Your task to perform on an android device: What's on my calendar tomorrow? Image 0: 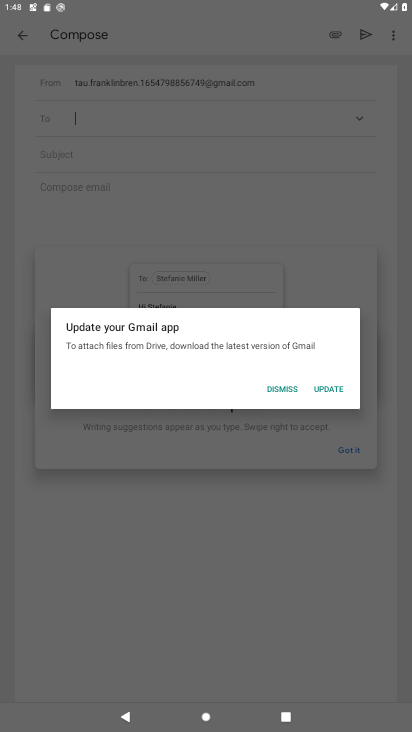
Step 0: press home button
Your task to perform on an android device: What's on my calendar tomorrow? Image 1: 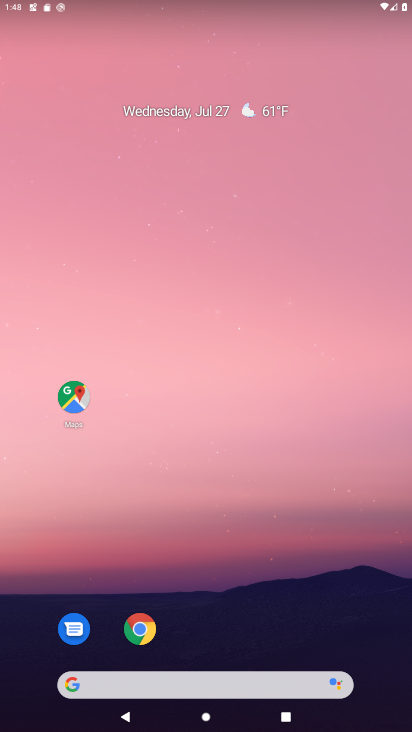
Step 1: drag from (196, 678) to (230, 237)
Your task to perform on an android device: What's on my calendar tomorrow? Image 2: 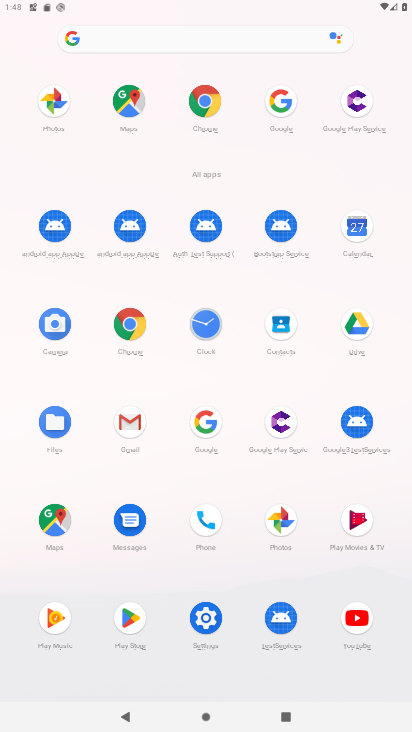
Step 2: click (362, 247)
Your task to perform on an android device: What's on my calendar tomorrow? Image 3: 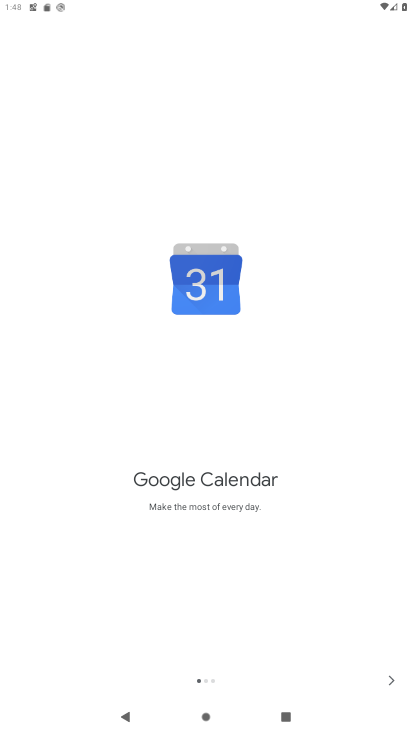
Step 3: click (391, 673)
Your task to perform on an android device: What's on my calendar tomorrow? Image 4: 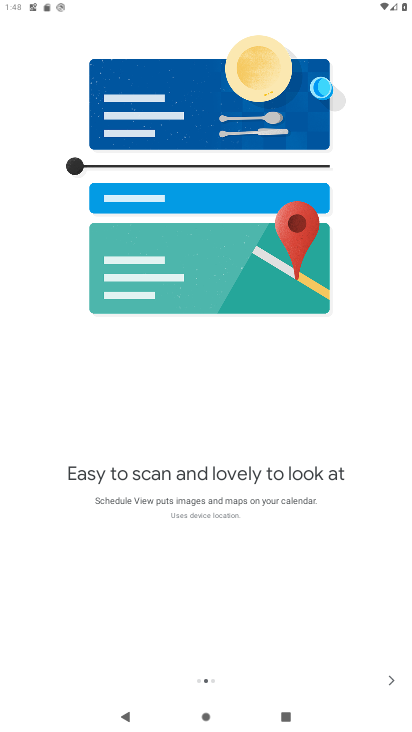
Step 4: click (391, 681)
Your task to perform on an android device: What's on my calendar tomorrow? Image 5: 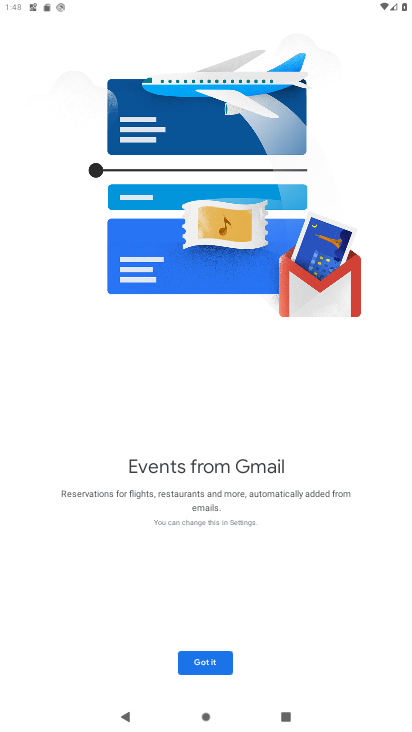
Step 5: click (194, 667)
Your task to perform on an android device: What's on my calendar tomorrow? Image 6: 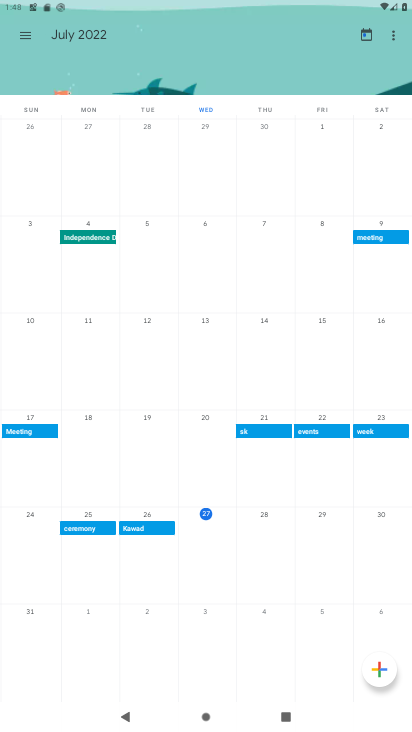
Step 6: click (265, 510)
Your task to perform on an android device: What's on my calendar tomorrow? Image 7: 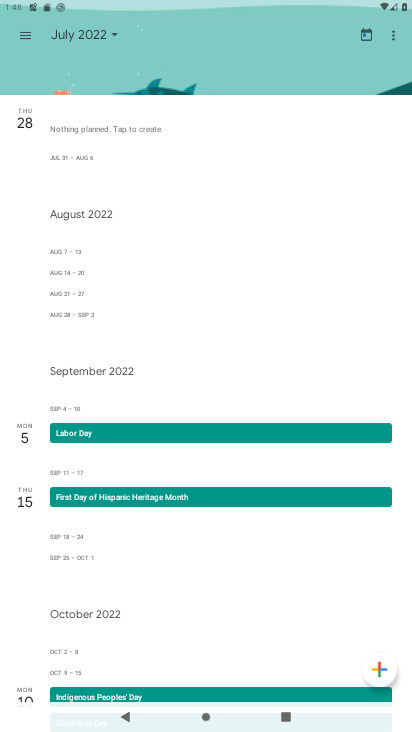
Step 7: task complete